Your task to perform on an android device: What's the weather today? Image 0: 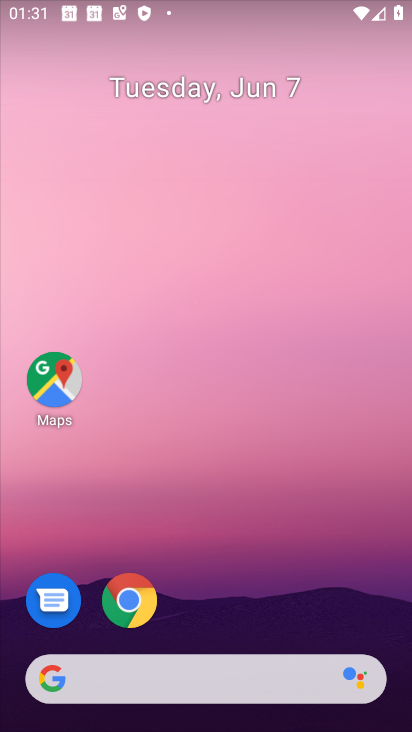
Step 0: drag from (185, 729) to (171, 184)
Your task to perform on an android device: What's the weather today? Image 1: 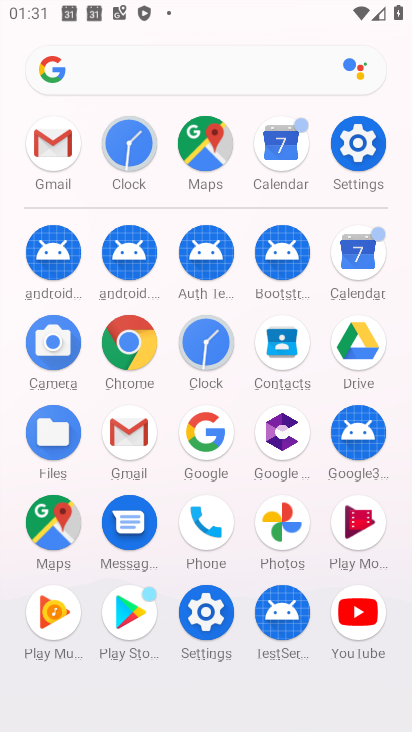
Step 1: click (205, 425)
Your task to perform on an android device: What's the weather today? Image 2: 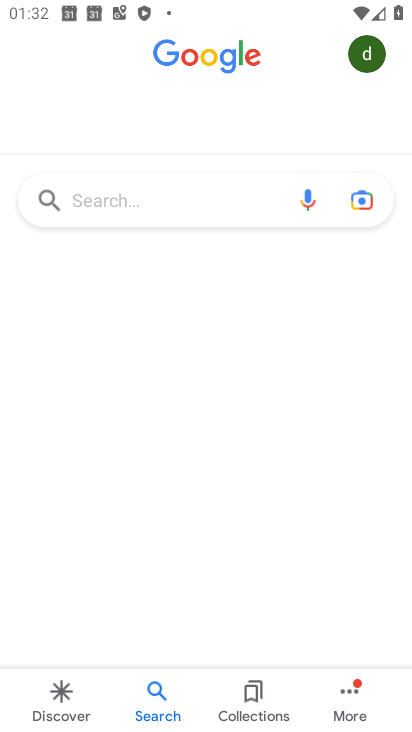
Step 2: click (171, 200)
Your task to perform on an android device: What's the weather today? Image 3: 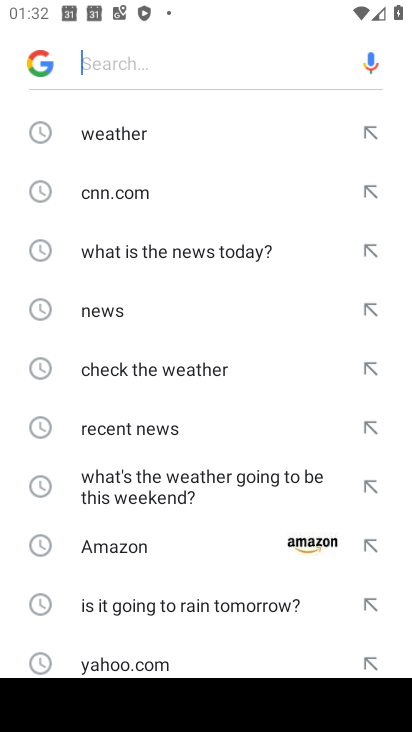
Step 3: click (119, 129)
Your task to perform on an android device: What's the weather today? Image 4: 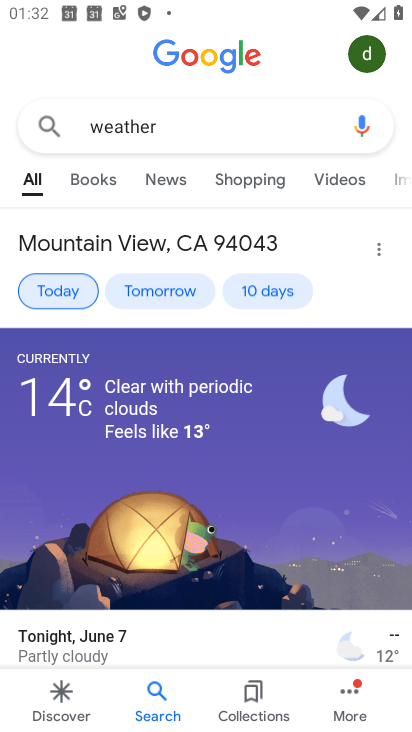
Step 4: click (60, 296)
Your task to perform on an android device: What's the weather today? Image 5: 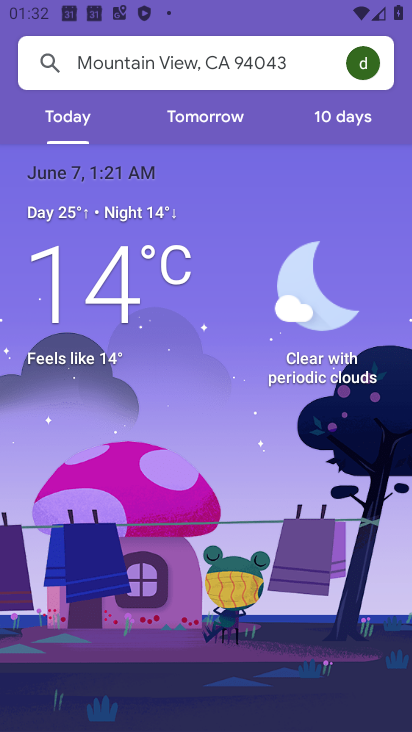
Step 5: task complete